Your task to perform on an android device: Open internet settings Image 0: 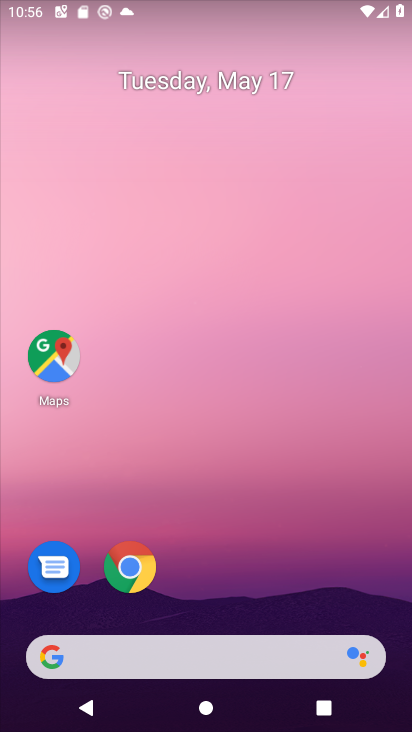
Step 0: drag from (248, 545) to (312, 2)
Your task to perform on an android device: Open internet settings Image 1: 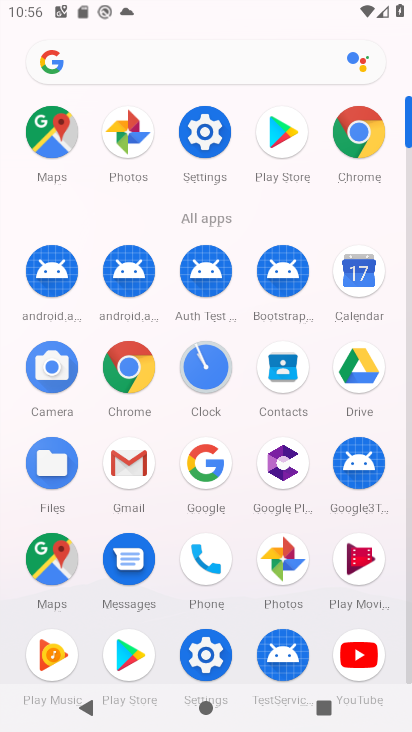
Step 1: click (197, 170)
Your task to perform on an android device: Open internet settings Image 2: 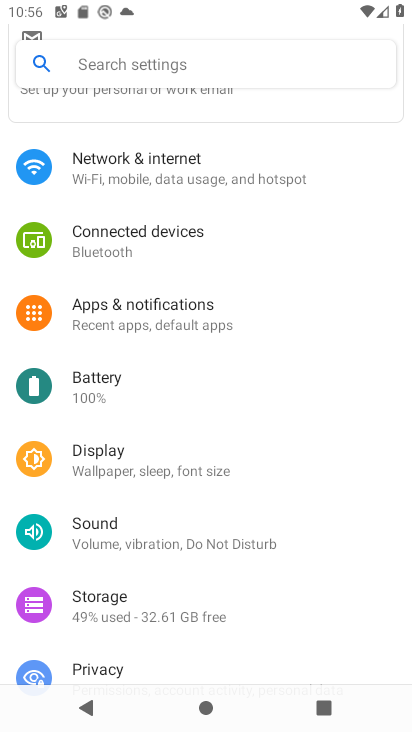
Step 2: click (212, 173)
Your task to perform on an android device: Open internet settings Image 3: 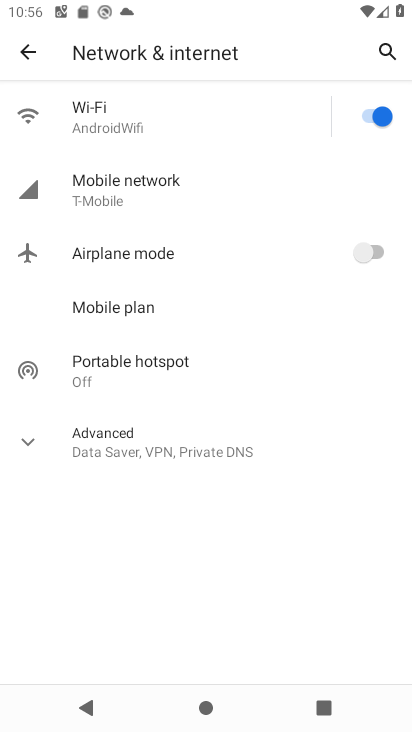
Step 3: task complete